Your task to perform on an android device: turn on wifi Image 0: 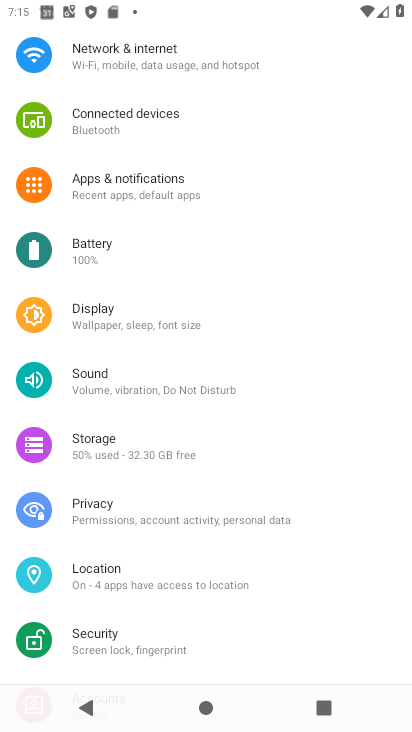
Step 0: drag from (174, 4) to (260, 683)
Your task to perform on an android device: turn on wifi Image 1: 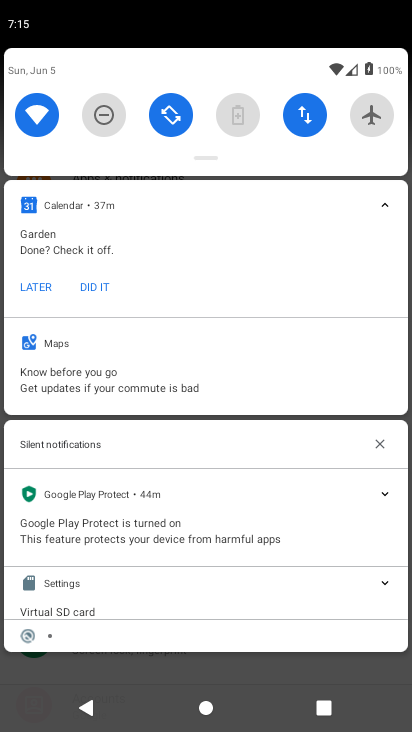
Step 1: task complete